Your task to perform on an android device: visit the assistant section in the google photos Image 0: 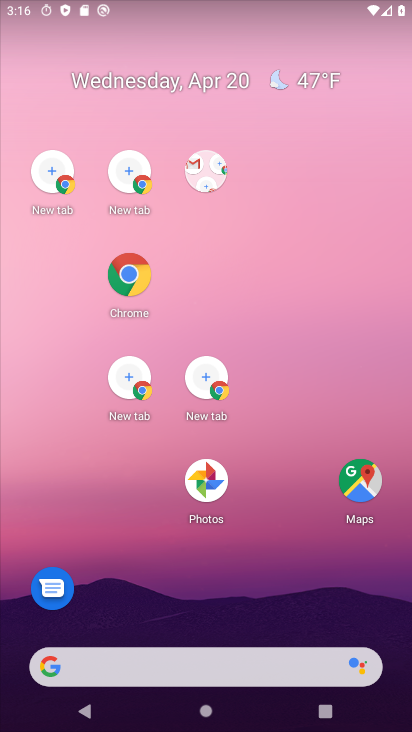
Step 0: drag from (207, 501) to (181, 158)
Your task to perform on an android device: visit the assistant section in the google photos Image 1: 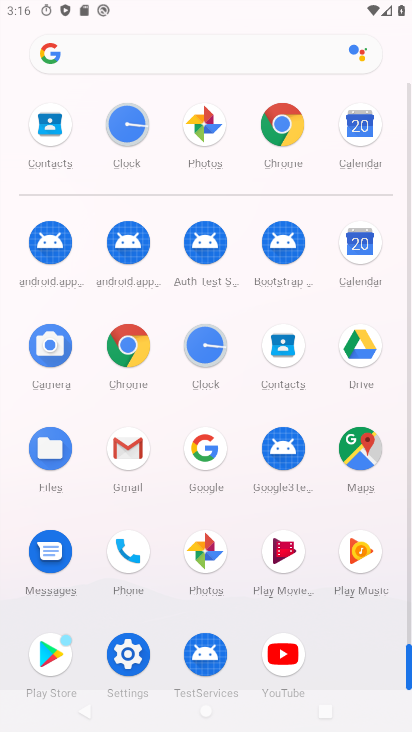
Step 1: click (193, 549)
Your task to perform on an android device: visit the assistant section in the google photos Image 2: 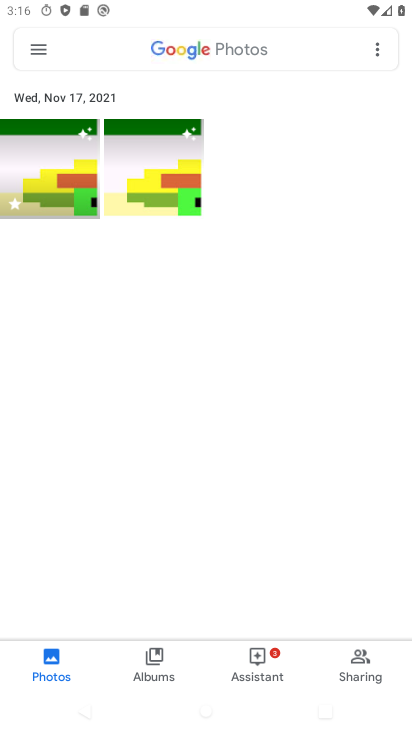
Step 2: click (247, 654)
Your task to perform on an android device: visit the assistant section in the google photos Image 3: 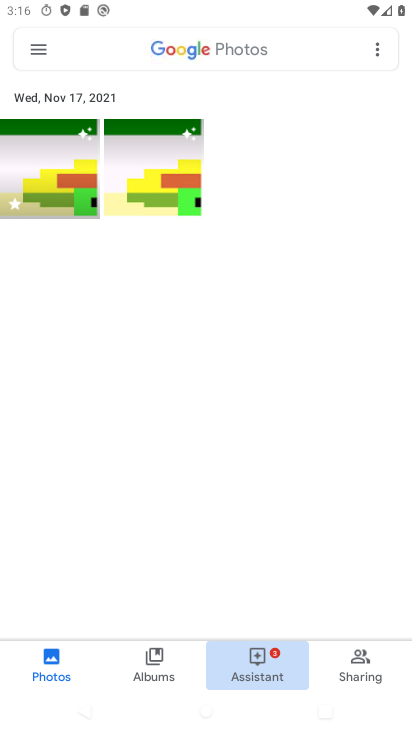
Step 3: click (247, 654)
Your task to perform on an android device: visit the assistant section in the google photos Image 4: 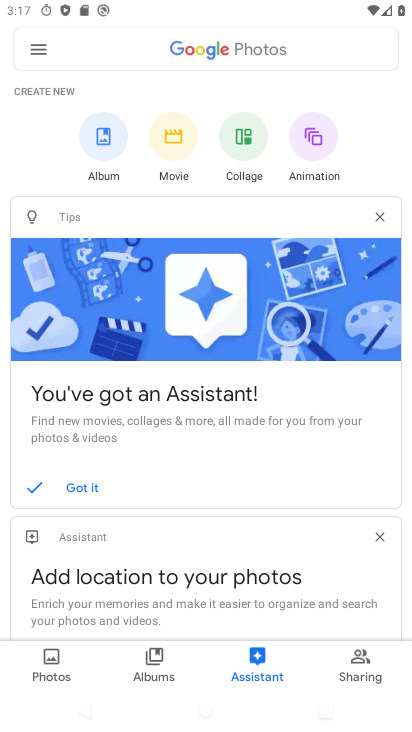
Step 4: task complete